Your task to perform on an android device: Show me popular videos on Youtube Image 0: 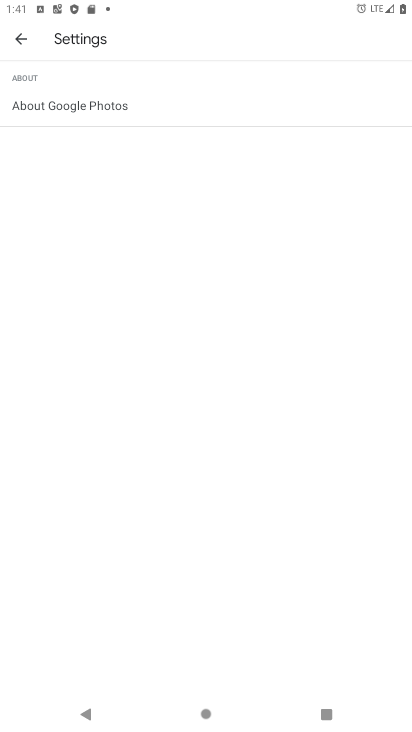
Step 0: press home button
Your task to perform on an android device: Show me popular videos on Youtube Image 1: 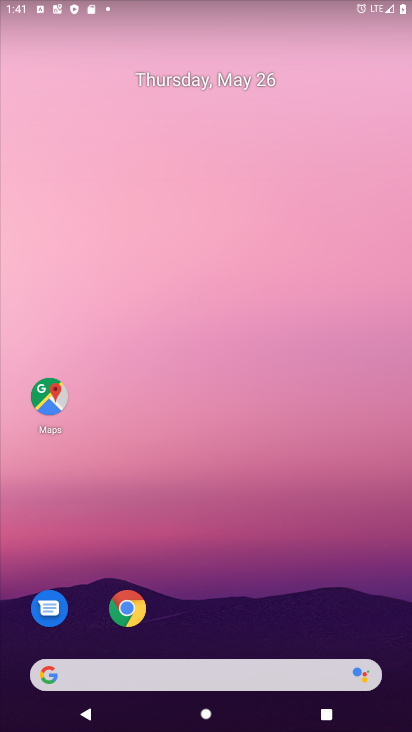
Step 1: drag from (375, 629) to (287, 25)
Your task to perform on an android device: Show me popular videos on Youtube Image 2: 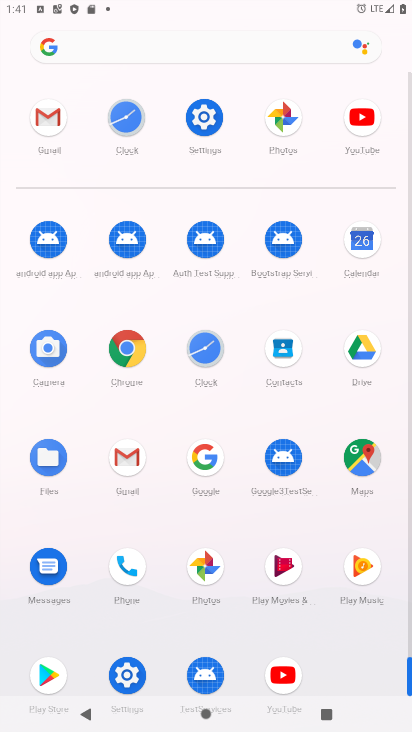
Step 2: click (282, 672)
Your task to perform on an android device: Show me popular videos on Youtube Image 3: 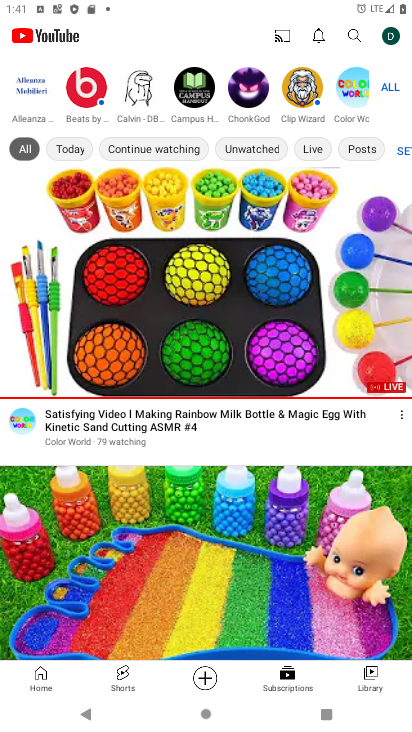
Step 3: click (38, 675)
Your task to perform on an android device: Show me popular videos on Youtube Image 4: 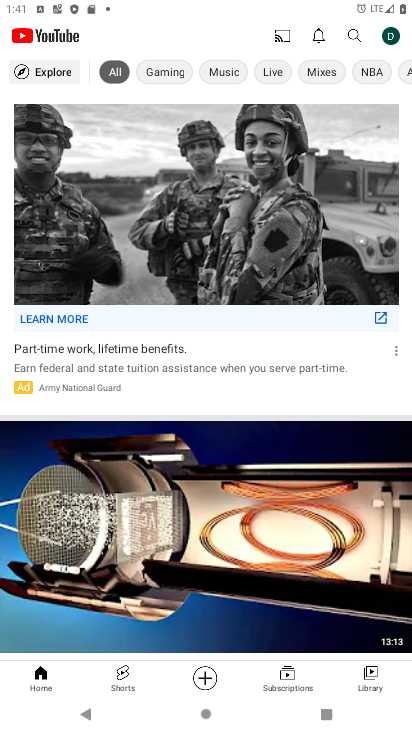
Step 4: task complete